Your task to perform on an android device: turn off notifications in google photos Image 0: 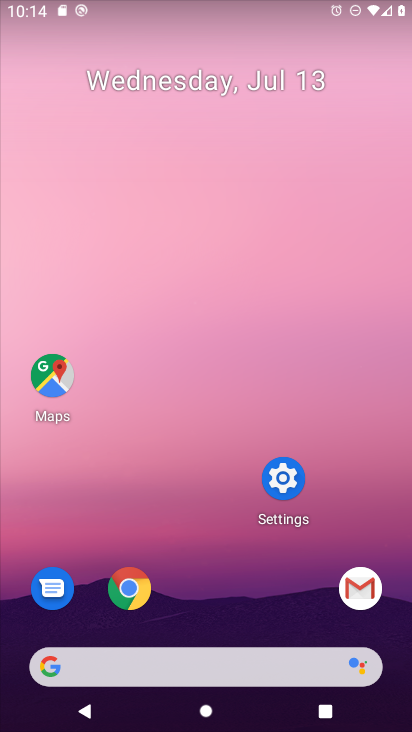
Step 0: press home button
Your task to perform on an android device: turn off notifications in google photos Image 1: 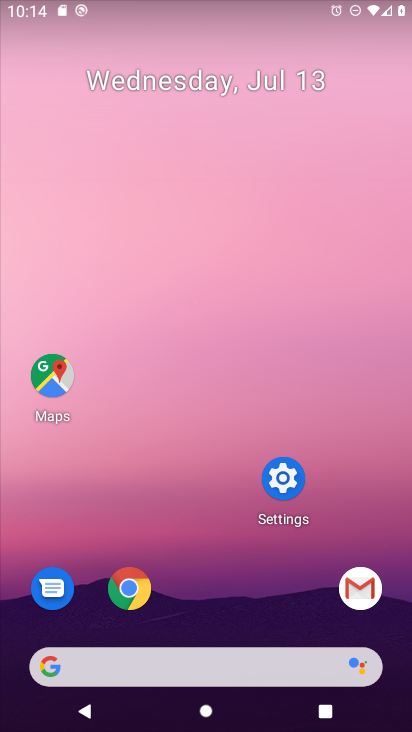
Step 1: drag from (311, 685) to (194, 219)
Your task to perform on an android device: turn off notifications in google photos Image 2: 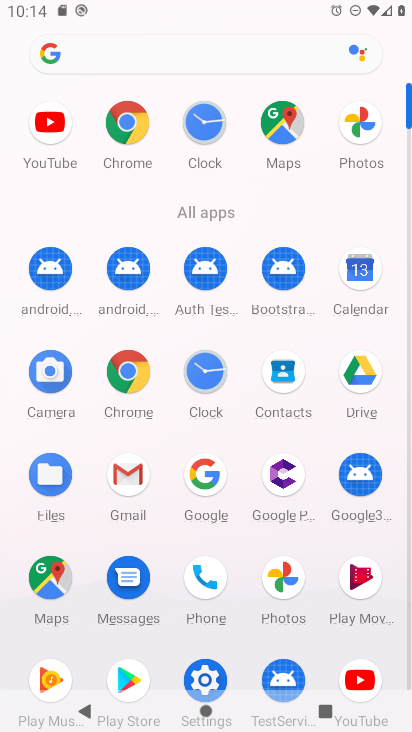
Step 2: click (274, 578)
Your task to perform on an android device: turn off notifications in google photos Image 3: 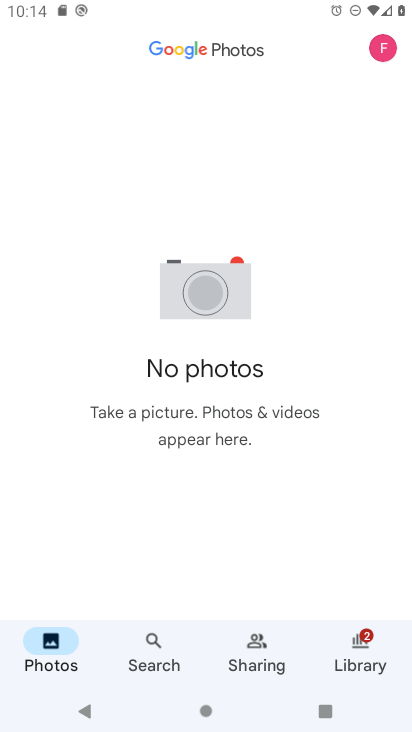
Step 3: click (368, 43)
Your task to perform on an android device: turn off notifications in google photos Image 4: 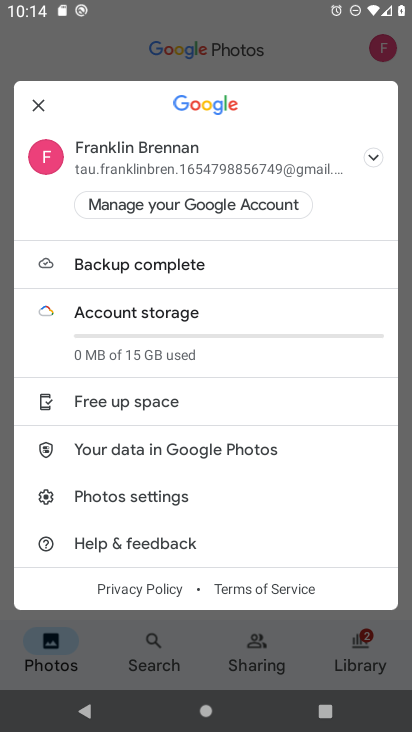
Step 4: click (172, 502)
Your task to perform on an android device: turn off notifications in google photos Image 5: 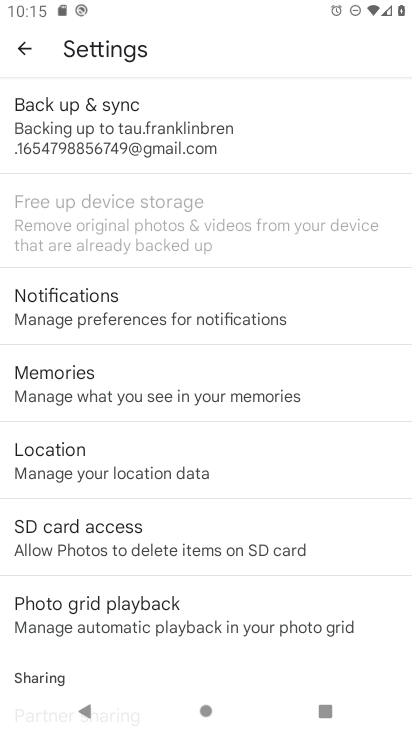
Step 5: click (95, 315)
Your task to perform on an android device: turn off notifications in google photos Image 6: 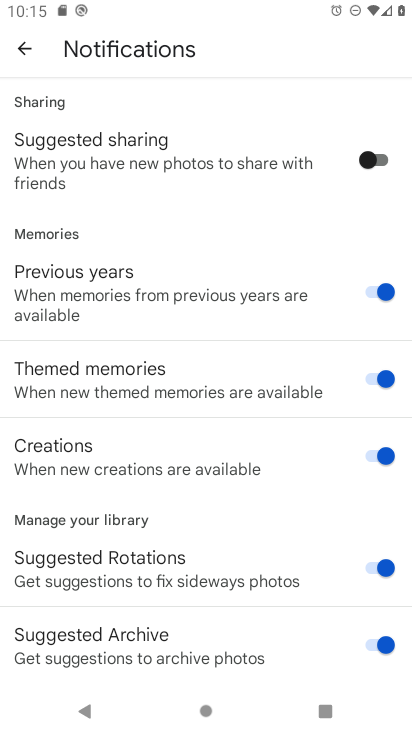
Step 6: drag from (143, 558) to (122, 430)
Your task to perform on an android device: turn off notifications in google photos Image 7: 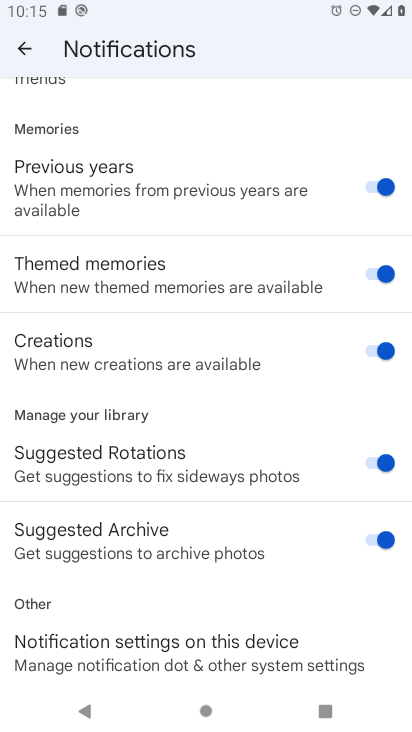
Step 7: click (109, 652)
Your task to perform on an android device: turn off notifications in google photos Image 8: 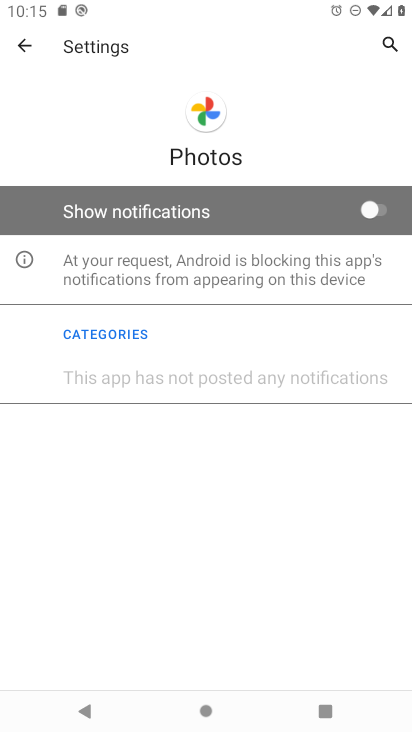
Step 8: click (348, 210)
Your task to perform on an android device: turn off notifications in google photos Image 9: 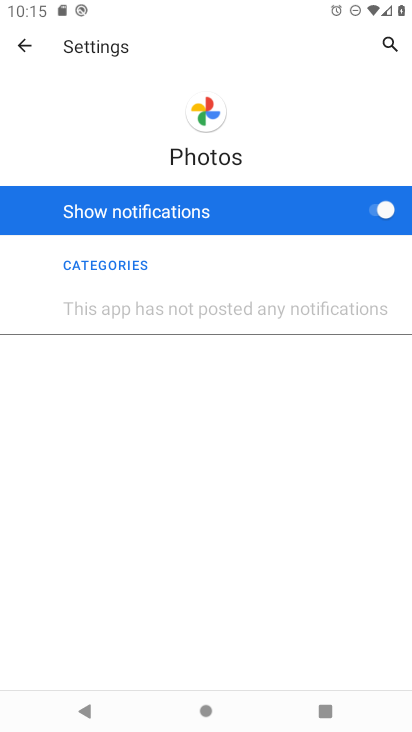
Step 9: click (348, 210)
Your task to perform on an android device: turn off notifications in google photos Image 10: 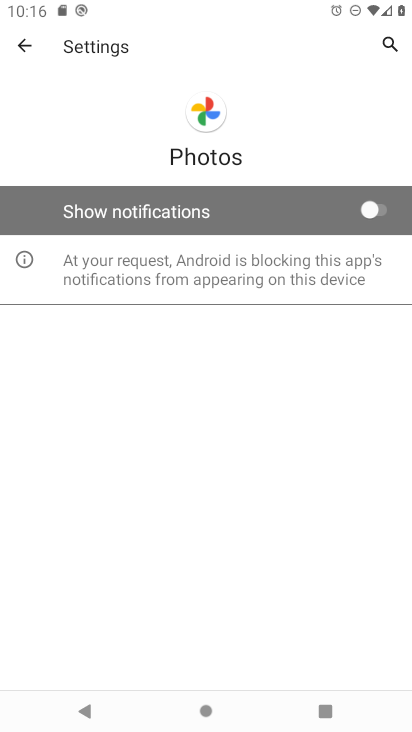
Step 10: task complete